Your task to perform on an android device: turn on sleep mode Image 0: 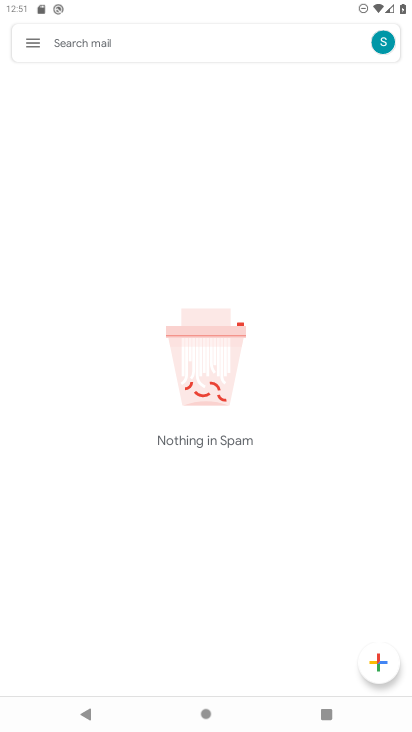
Step 0: press home button
Your task to perform on an android device: turn on sleep mode Image 1: 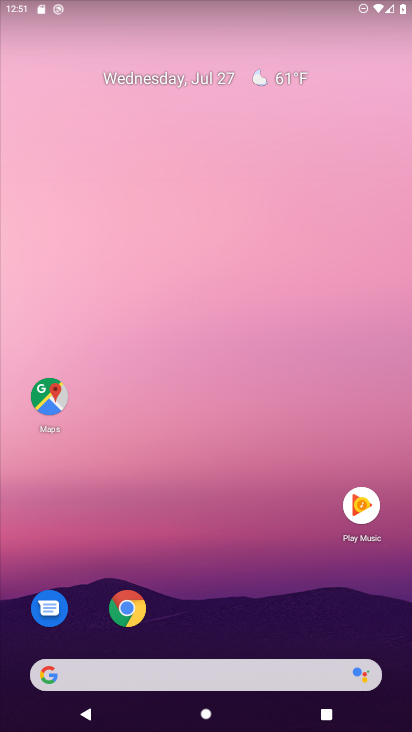
Step 1: drag from (284, 621) to (315, 126)
Your task to perform on an android device: turn on sleep mode Image 2: 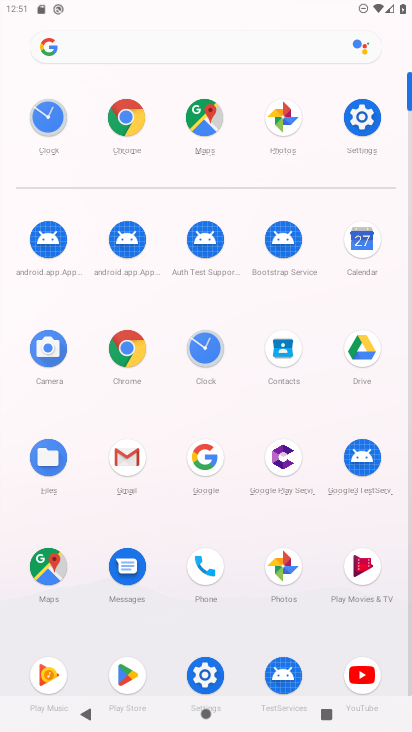
Step 2: click (359, 126)
Your task to perform on an android device: turn on sleep mode Image 3: 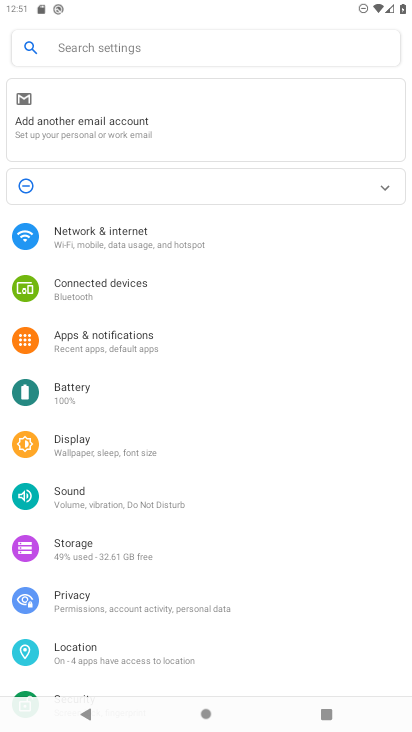
Step 3: drag from (356, 330) to (359, 289)
Your task to perform on an android device: turn on sleep mode Image 4: 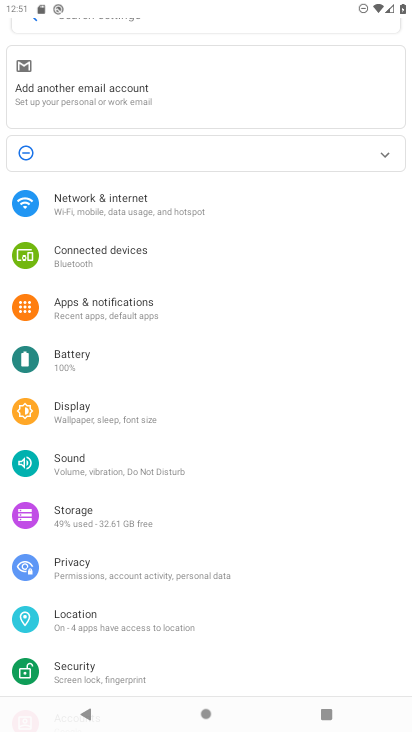
Step 4: drag from (341, 348) to (344, 304)
Your task to perform on an android device: turn on sleep mode Image 5: 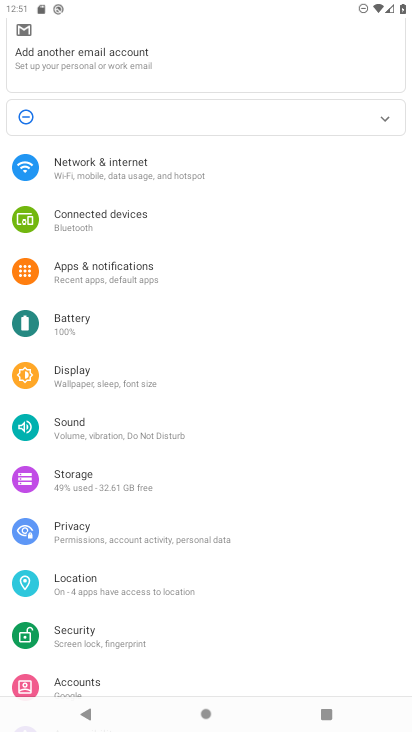
Step 5: drag from (329, 366) to (334, 322)
Your task to perform on an android device: turn on sleep mode Image 6: 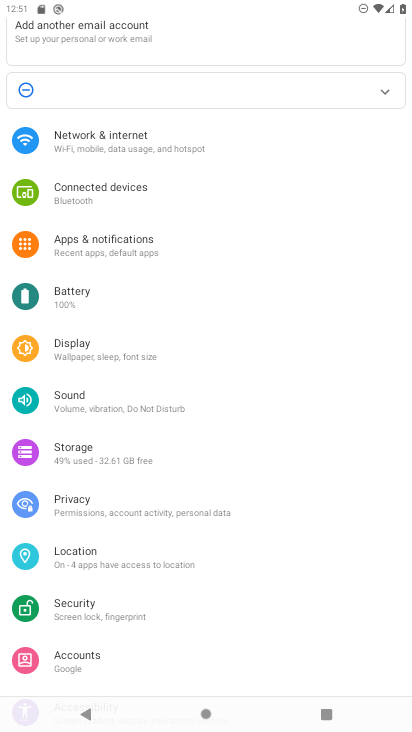
Step 6: drag from (326, 380) to (332, 332)
Your task to perform on an android device: turn on sleep mode Image 7: 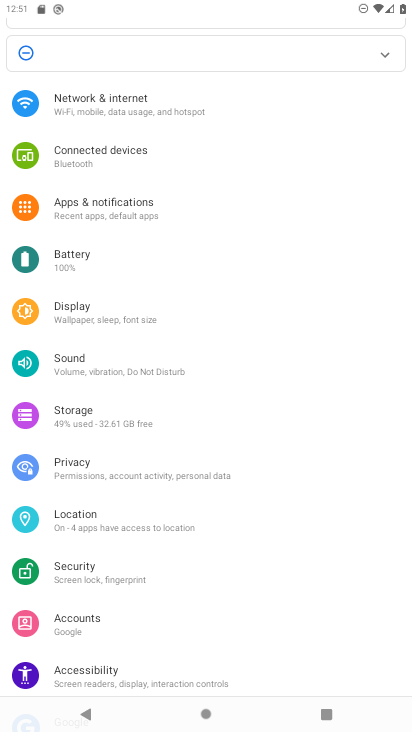
Step 7: drag from (320, 400) to (324, 343)
Your task to perform on an android device: turn on sleep mode Image 8: 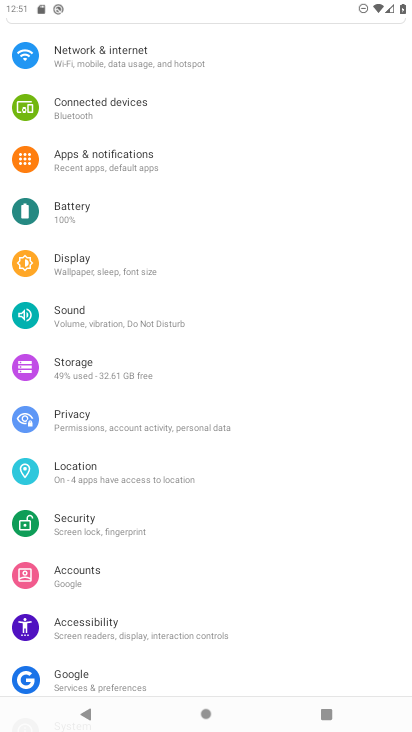
Step 8: drag from (333, 410) to (335, 357)
Your task to perform on an android device: turn on sleep mode Image 9: 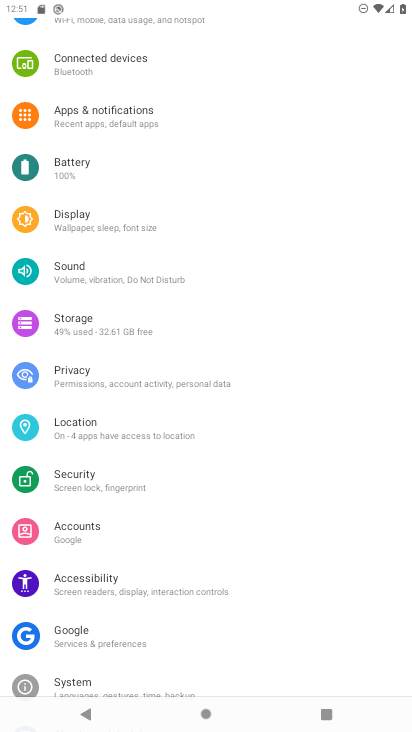
Step 9: drag from (320, 416) to (323, 364)
Your task to perform on an android device: turn on sleep mode Image 10: 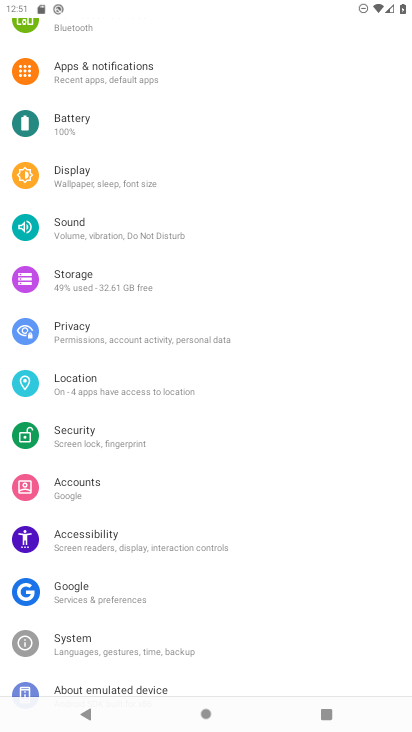
Step 10: drag from (317, 405) to (320, 366)
Your task to perform on an android device: turn on sleep mode Image 11: 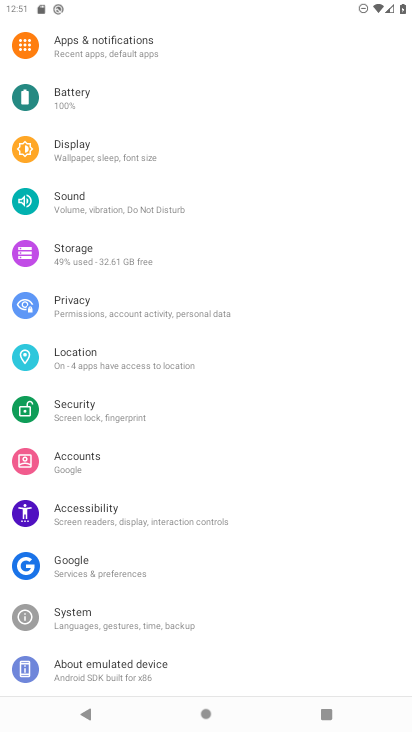
Step 11: drag from (319, 427) to (324, 364)
Your task to perform on an android device: turn on sleep mode Image 12: 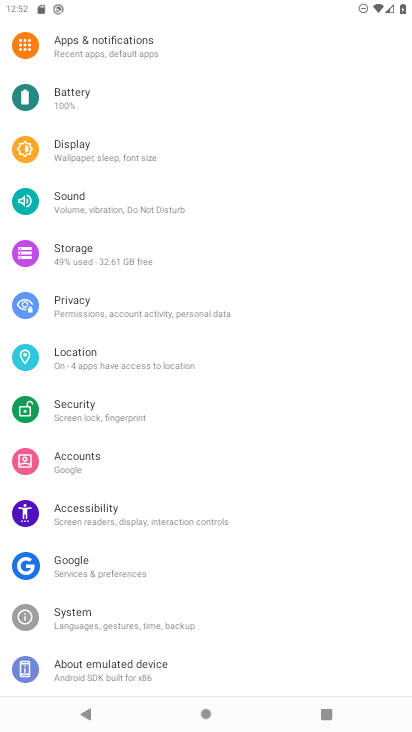
Step 12: drag from (309, 260) to (309, 303)
Your task to perform on an android device: turn on sleep mode Image 13: 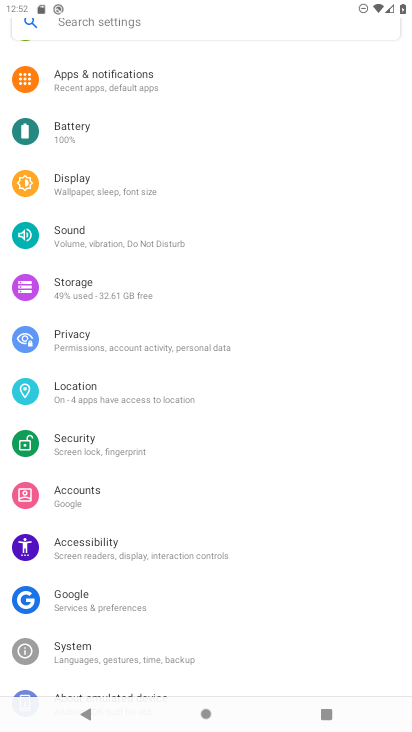
Step 13: drag from (308, 253) to (308, 301)
Your task to perform on an android device: turn on sleep mode Image 14: 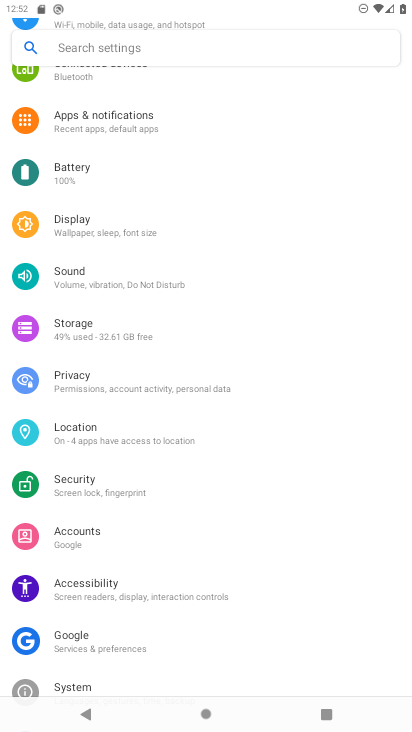
Step 14: drag from (308, 259) to (314, 439)
Your task to perform on an android device: turn on sleep mode Image 15: 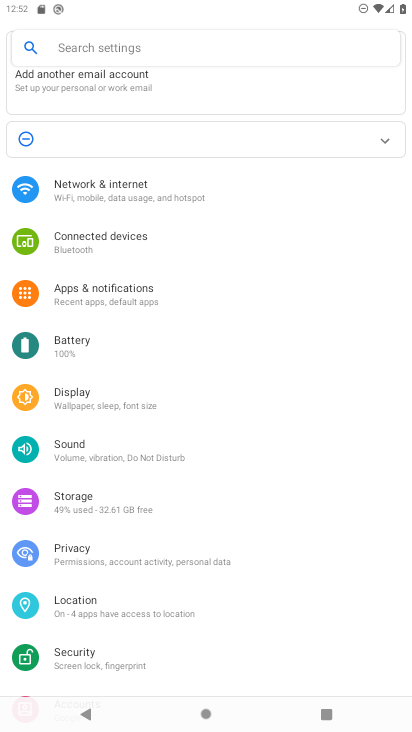
Step 15: click (188, 393)
Your task to perform on an android device: turn on sleep mode Image 16: 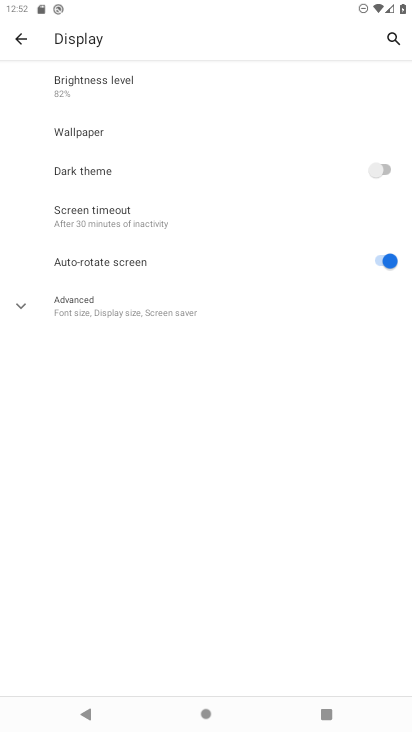
Step 16: click (184, 322)
Your task to perform on an android device: turn on sleep mode Image 17: 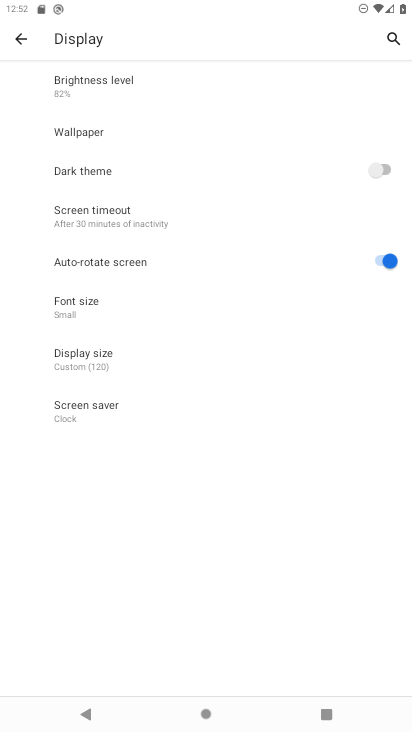
Step 17: task complete